Your task to perform on an android device: find snoozed emails in the gmail app Image 0: 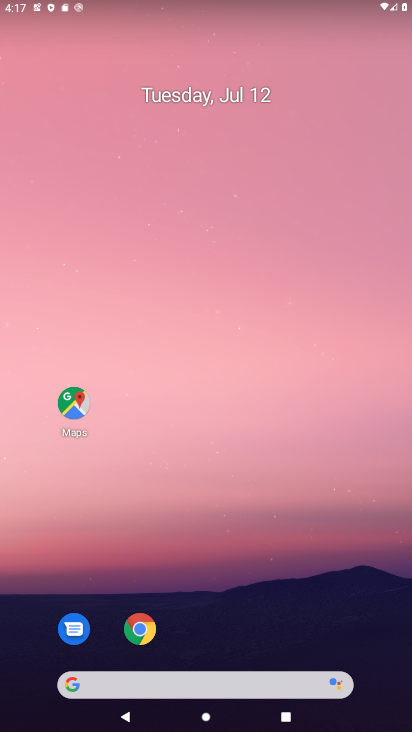
Step 0: press home button
Your task to perform on an android device: find snoozed emails in the gmail app Image 1: 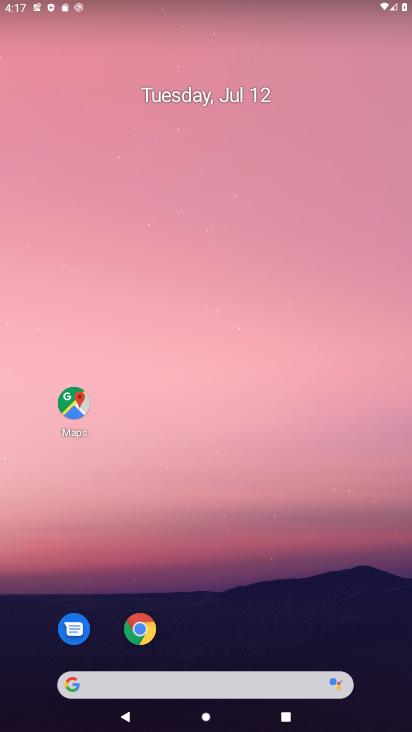
Step 1: press home button
Your task to perform on an android device: find snoozed emails in the gmail app Image 2: 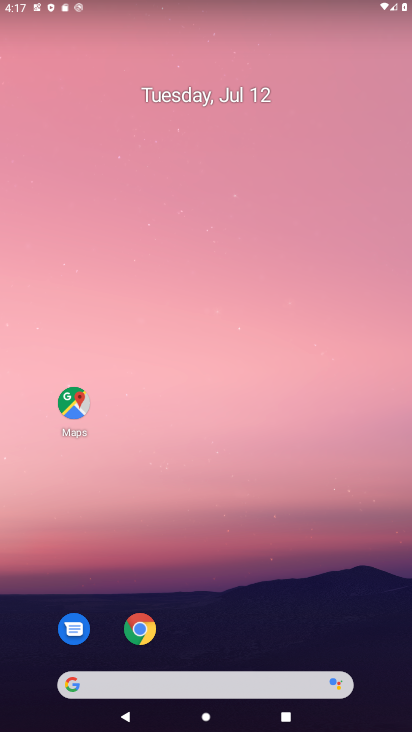
Step 2: drag from (191, 628) to (210, 18)
Your task to perform on an android device: find snoozed emails in the gmail app Image 3: 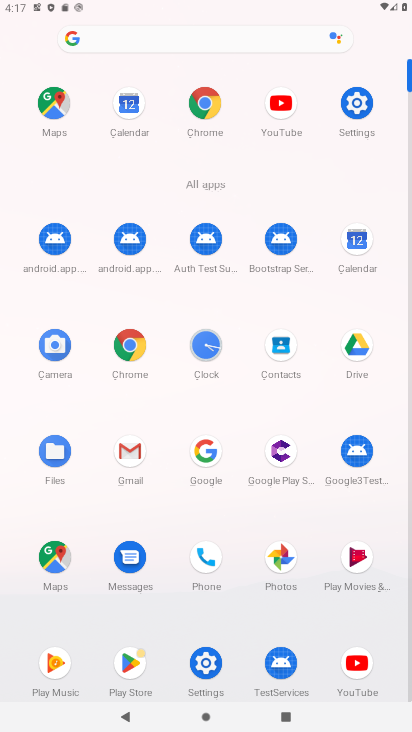
Step 3: click (126, 458)
Your task to perform on an android device: find snoozed emails in the gmail app Image 4: 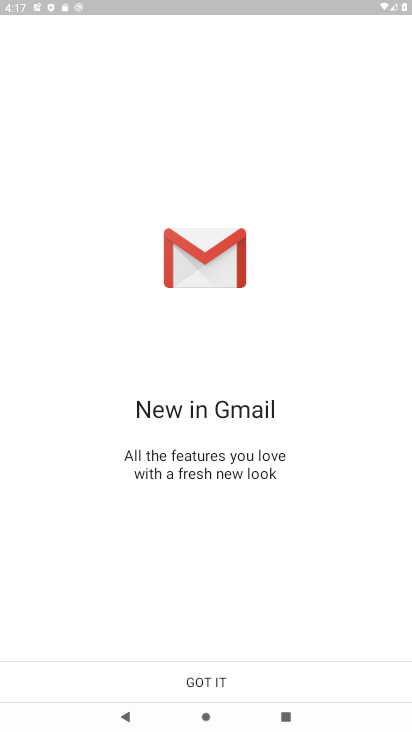
Step 4: click (194, 672)
Your task to perform on an android device: find snoozed emails in the gmail app Image 5: 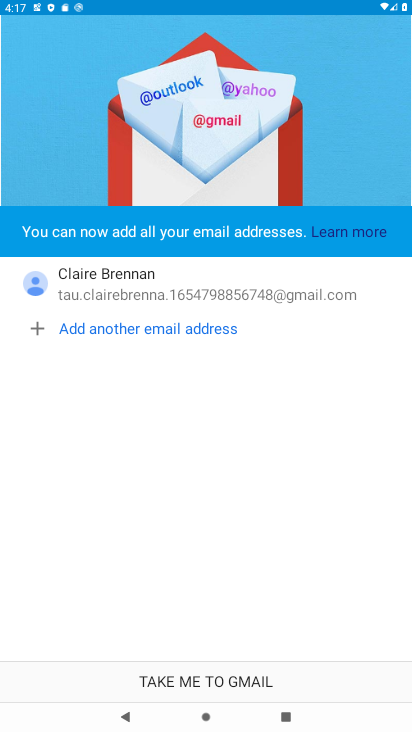
Step 5: click (196, 680)
Your task to perform on an android device: find snoozed emails in the gmail app Image 6: 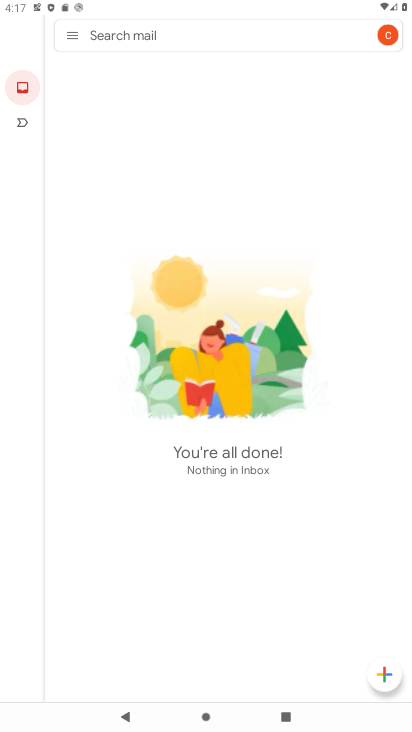
Step 6: click (79, 37)
Your task to perform on an android device: find snoozed emails in the gmail app Image 7: 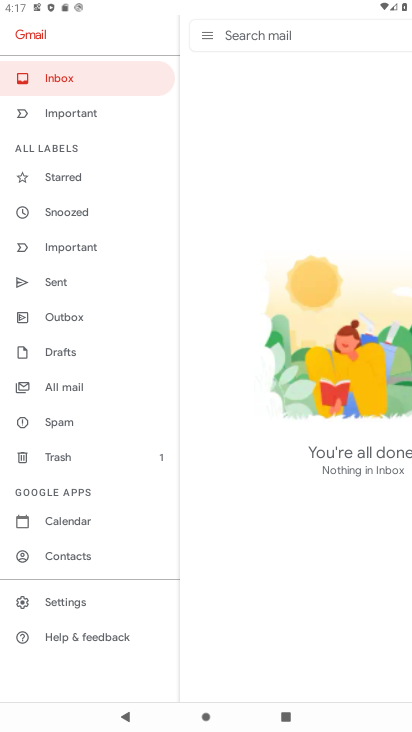
Step 7: click (69, 210)
Your task to perform on an android device: find snoozed emails in the gmail app Image 8: 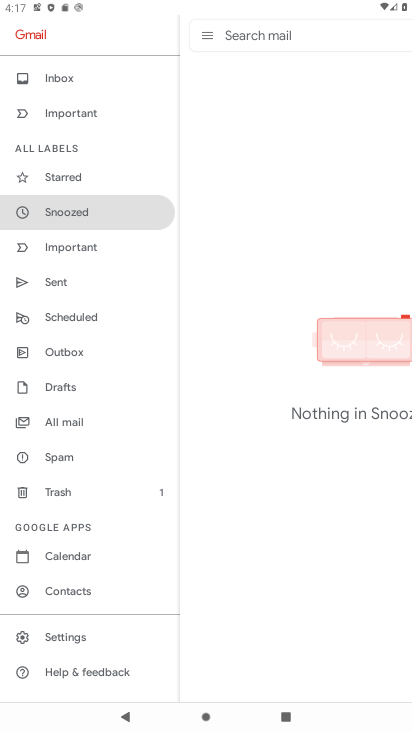
Step 8: task complete